Your task to perform on an android device: set default search engine in the chrome app Image 0: 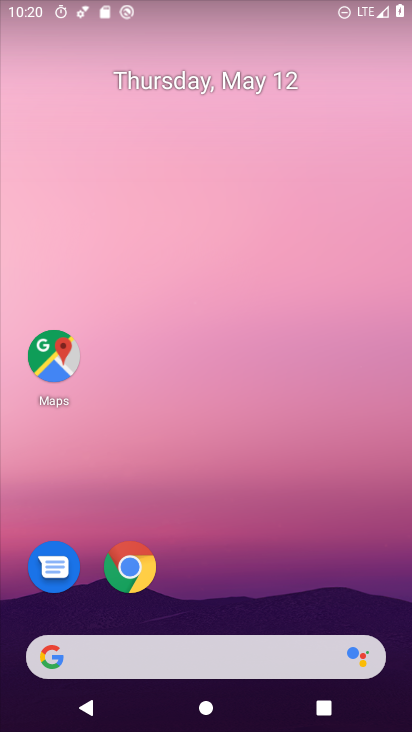
Step 0: drag from (150, 667) to (166, 164)
Your task to perform on an android device: set default search engine in the chrome app Image 1: 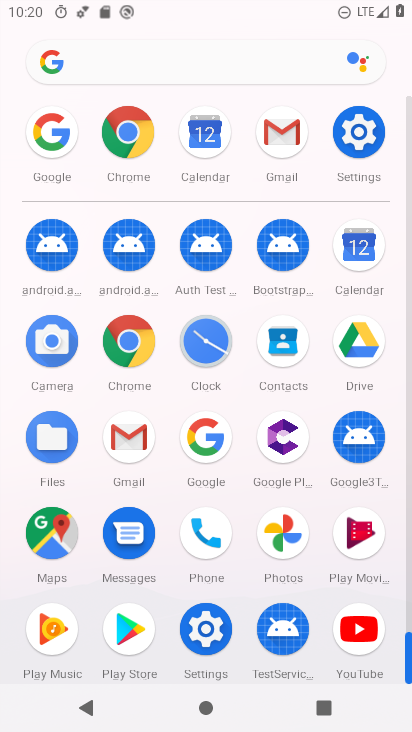
Step 1: click (139, 152)
Your task to perform on an android device: set default search engine in the chrome app Image 2: 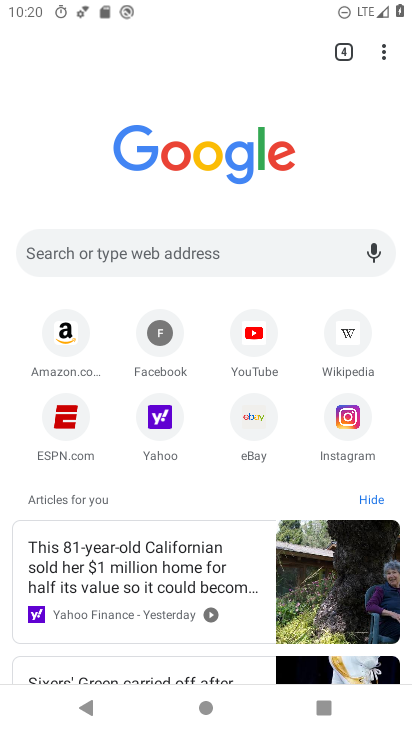
Step 2: click (378, 64)
Your task to perform on an android device: set default search engine in the chrome app Image 3: 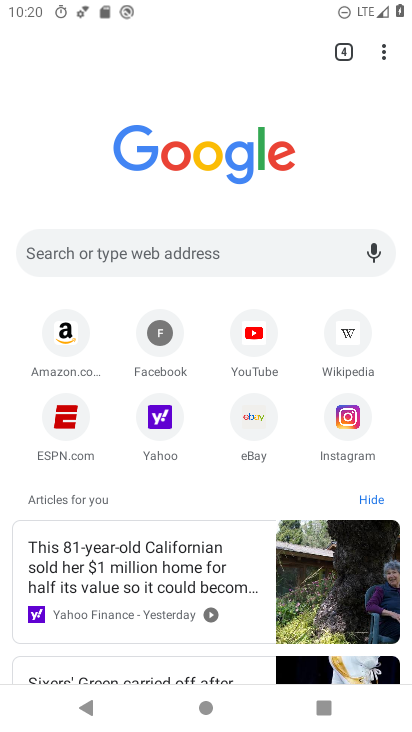
Step 3: click (392, 69)
Your task to perform on an android device: set default search engine in the chrome app Image 4: 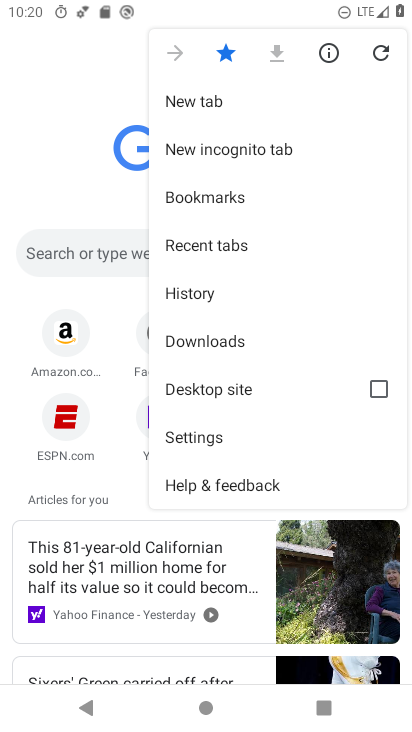
Step 4: click (257, 433)
Your task to perform on an android device: set default search engine in the chrome app Image 5: 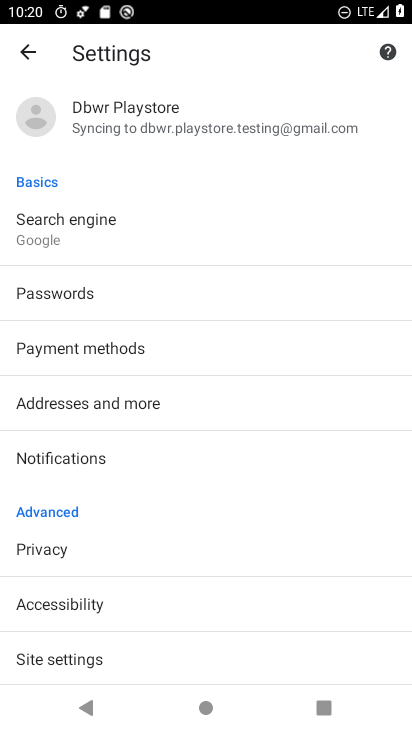
Step 5: click (107, 244)
Your task to perform on an android device: set default search engine in the chrome app Image 6: 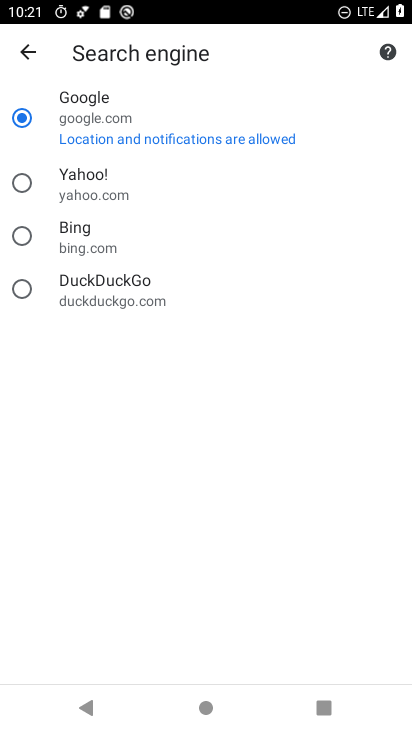
Step 6: task complete